Your task to perform on an android device: change alarm snooze length Image 0: 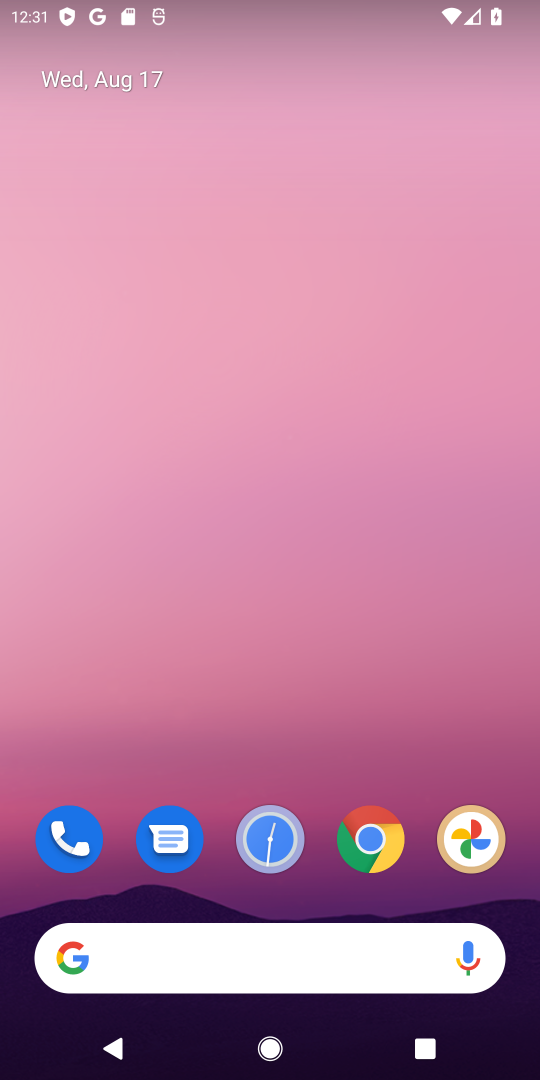
Step 0: drag from (226, 981) to (419, 347)
Your task to perform on an android device: change alarm snooze length Image 1: 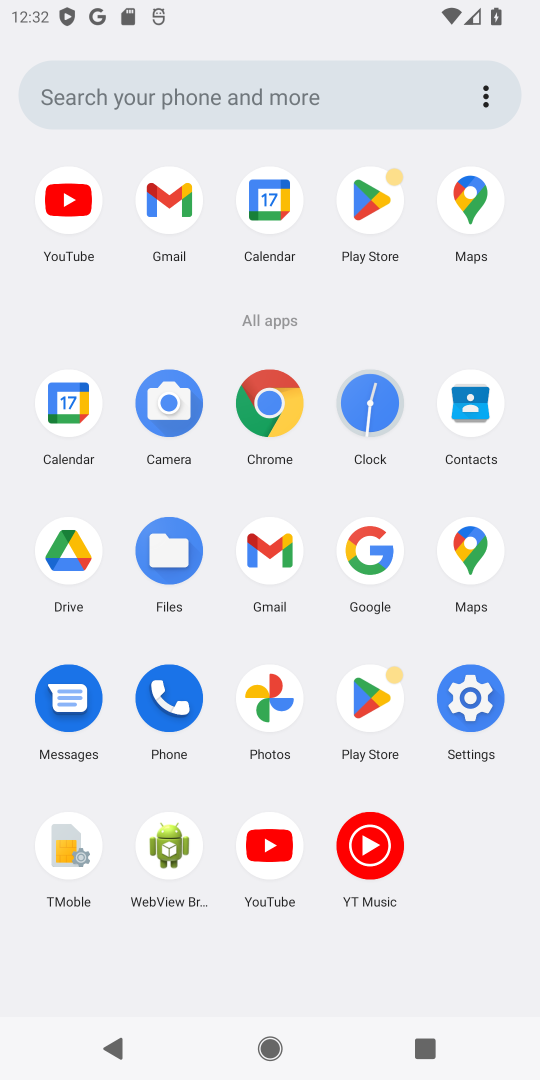
Step 1: click (371, 405)
Your task to perform on an android device: change alarm snooze length Image 2: 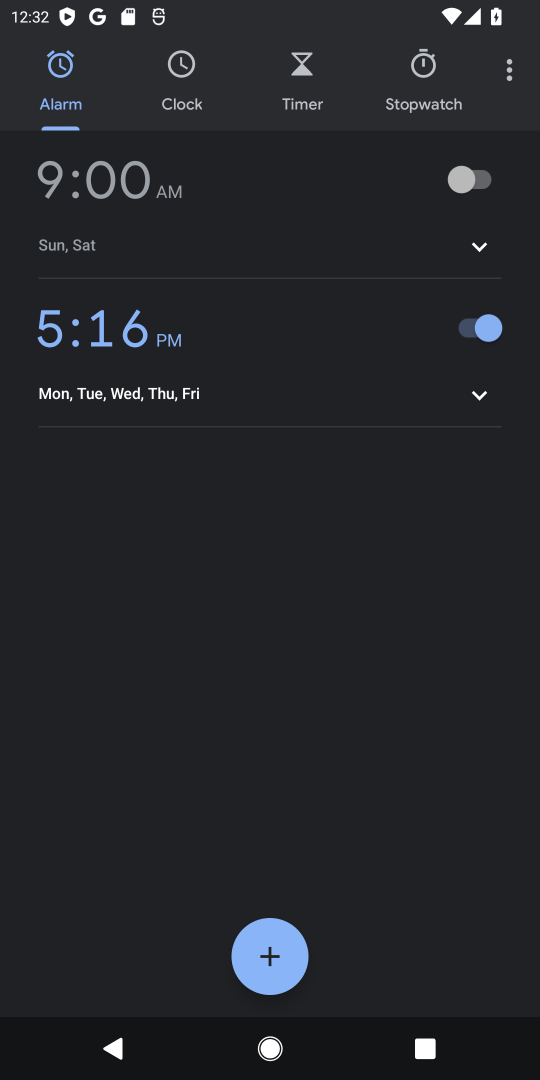
Step 2: click (511, 75)
Your task to perform on an android device: change alarm snooze length Image 3: 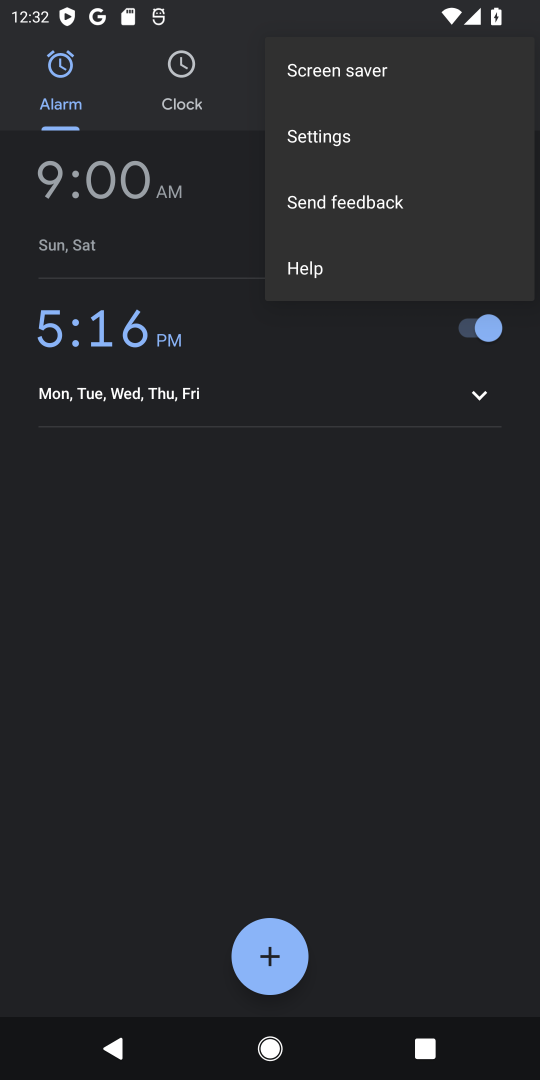
Step 3: click (326, 144)
Your task to perform on an android device: change alarm snooze length Image 4: 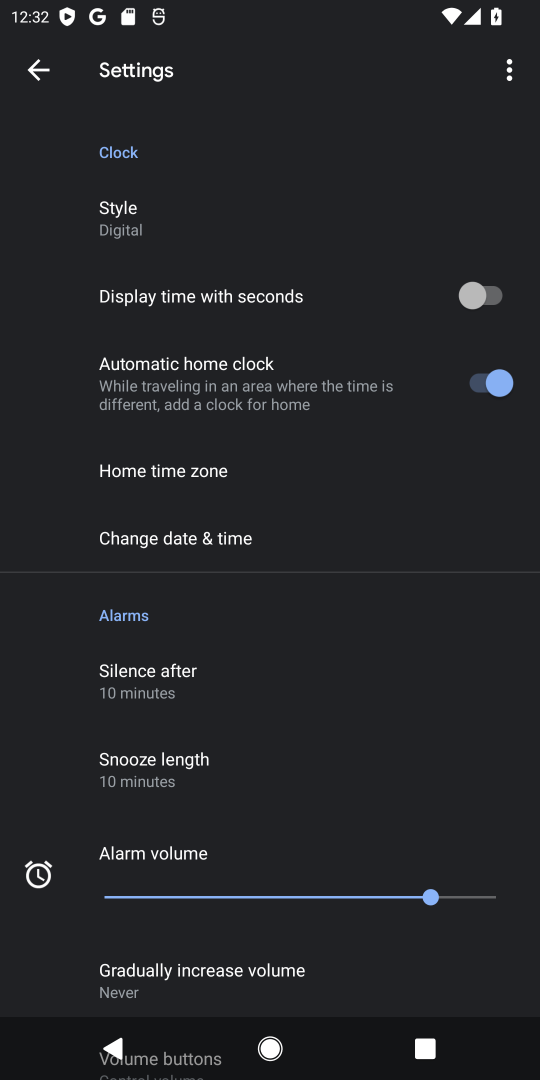
Step 4: click (174, 773)
Your task to perform on an android device: change alarm snooze length Image 5: 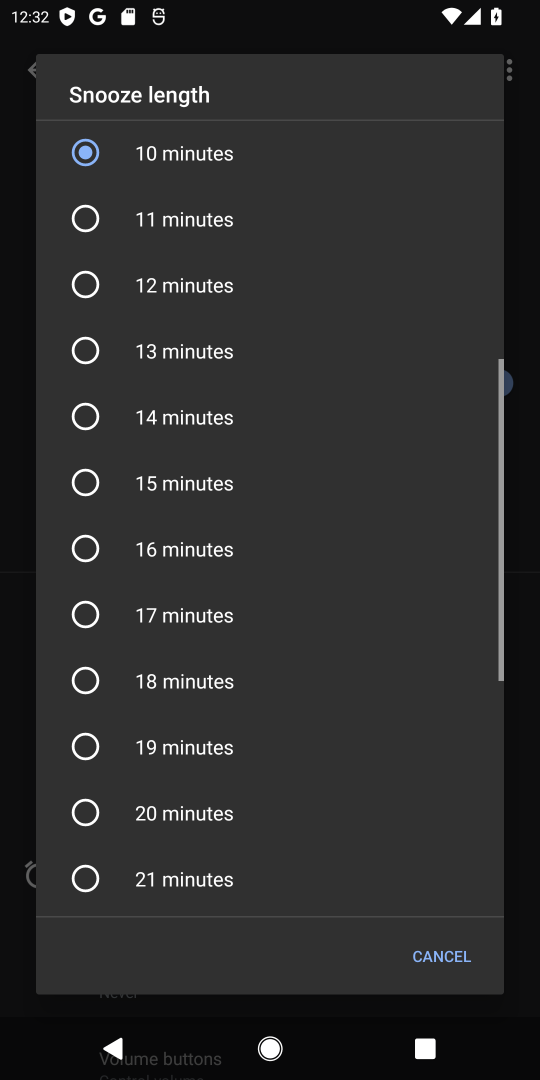
Step 5: drag from (174, 773) to (322, 573)
Your task to perform on an android device: change alarm snooze length Image 6: 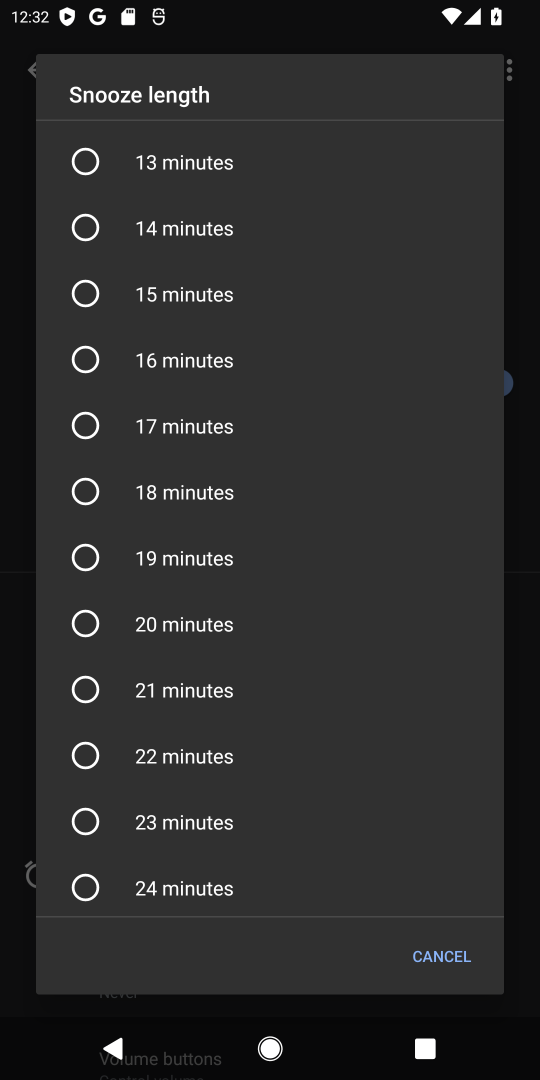
Step 6: click (89, 687)
Your task to perform on an android device: change alarm snooze length Image 7: 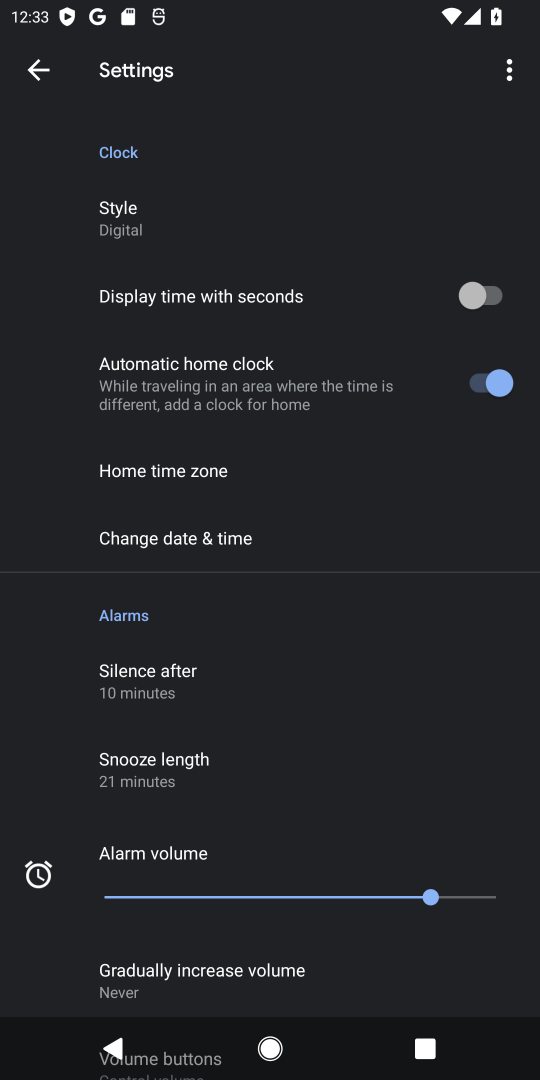
Step 7: task complete